Your task to perform on an android device: Open calendar and show me the third week of next month Image 0: 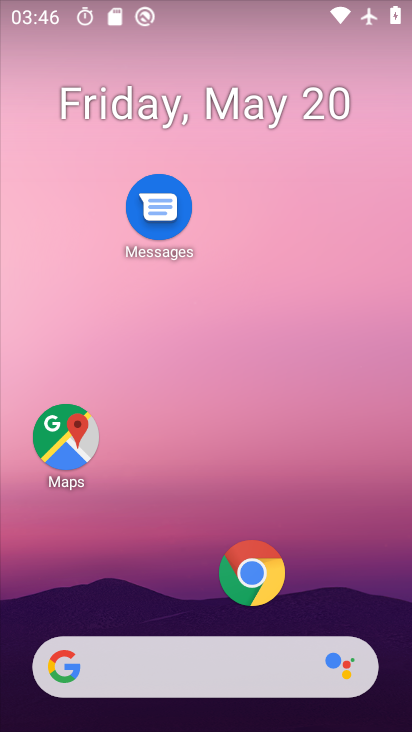
Step 0: drag from (177, 586) to (262, 226)
Your task to perform on an android device: Open calendar and show me the third week of next month Image 1: 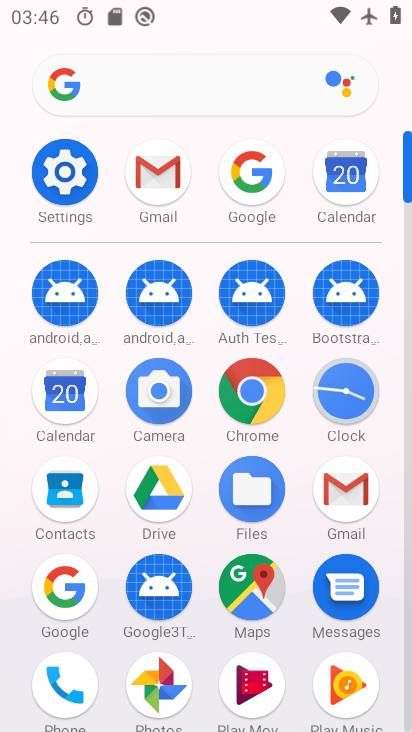
Step 1: click (66, 413)
Your task to perform on an android device: Open calendar and show me the third week of next month Image 2: 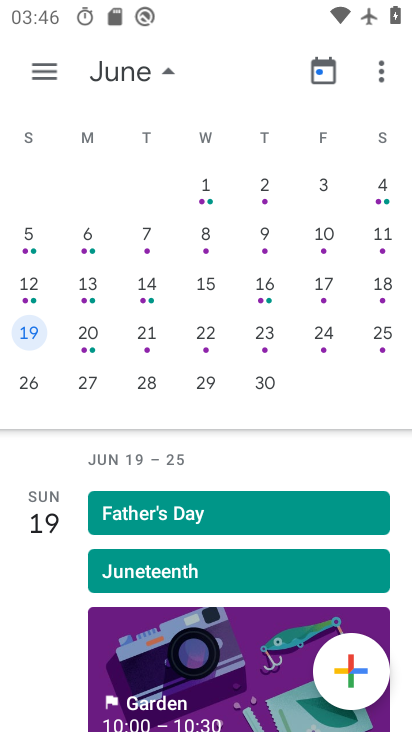
Step 2: click (21, 282)
Your task to perform on an android device: Open calendar and show me the third week of next month Image 3: 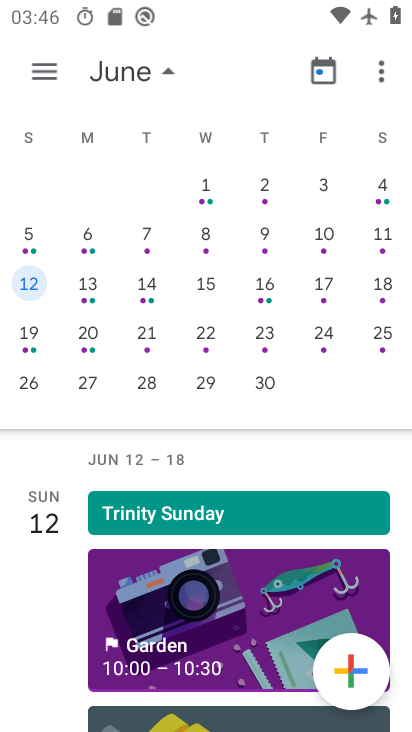
Step 3: task complete